Your task to perform on an android device: Open maps Image 0: 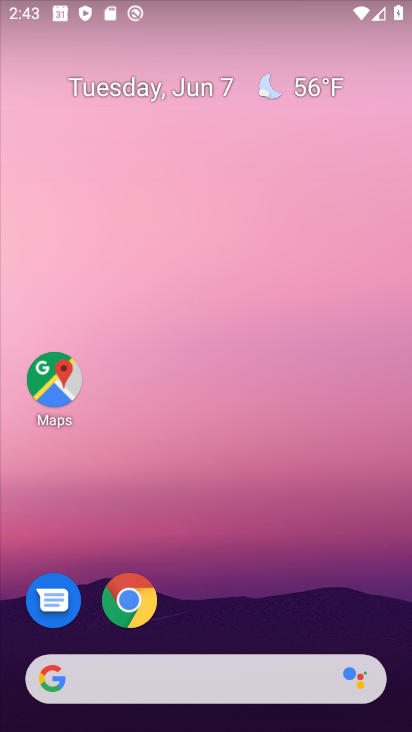
Step 0: click (61, 370)
Your task to perform on an android device: Open maps Image 1: 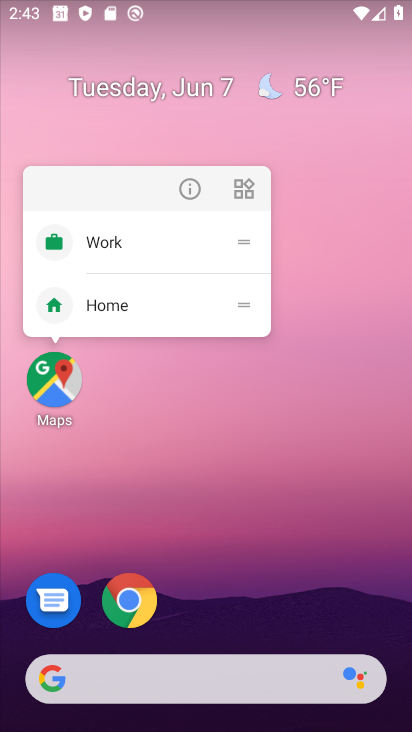
Step 1: click (61, 370)
Your task to perform on an android device: Open maps Image 2: 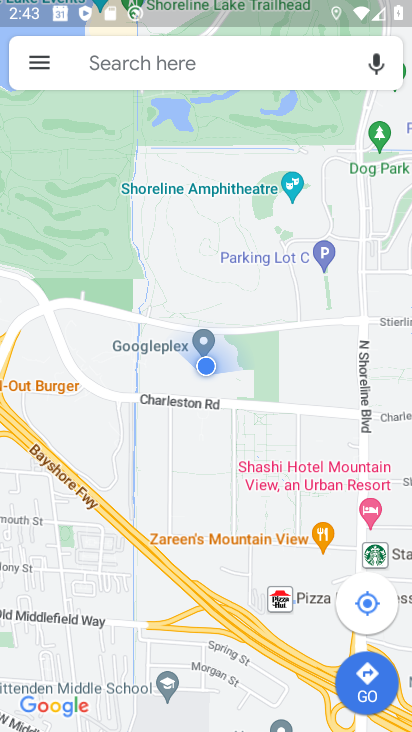
Step 2: task complete